Your task to perform on an android device: open app "VLC for Android" (install if not already installed) and enter user name: "Yves@outlook.com" and password: "internally" Image 0: 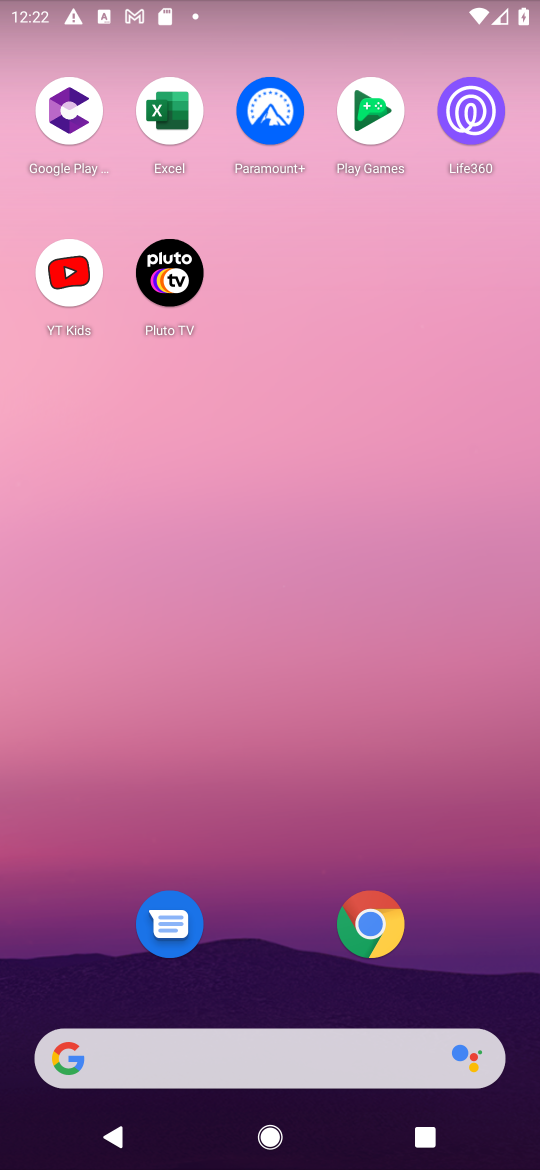
Step 0: press home button
Your task to perform on an android device: open app "VLC for Android" (install if not already installed) and enter user name: "Yves@outlook.com" and password: "internally" Image 1: 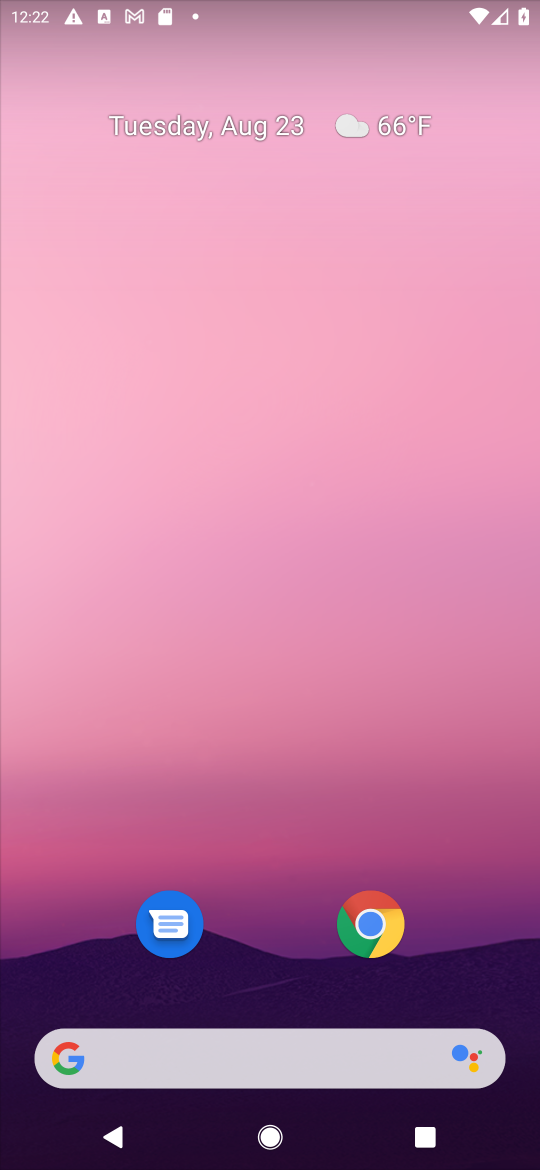
Step 1: drag from (481, 982) to (465, 107)
Your task to perform on an android device: open app "VLC for Android" (install if not already installed) and enter user name: "Yves@outlook.com" and password: "internally" Image 2: 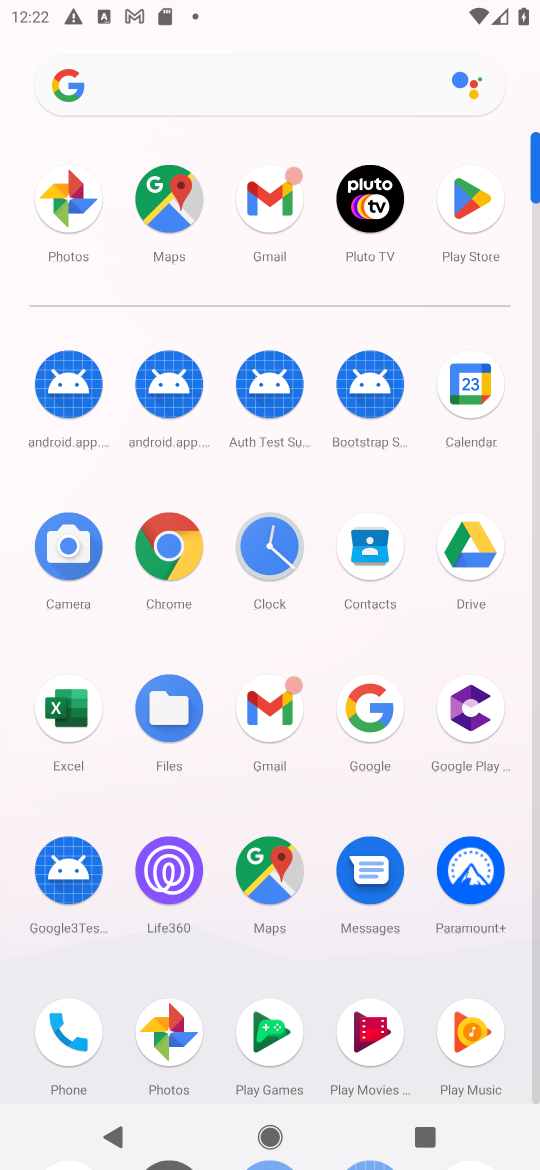
Step 2: click (473, 193)
Your task to perform on an android device: open app "VLC for Android" (install if not already installed) and enter user name: "Yves@outlook.com" and password: "internally" Image 3: 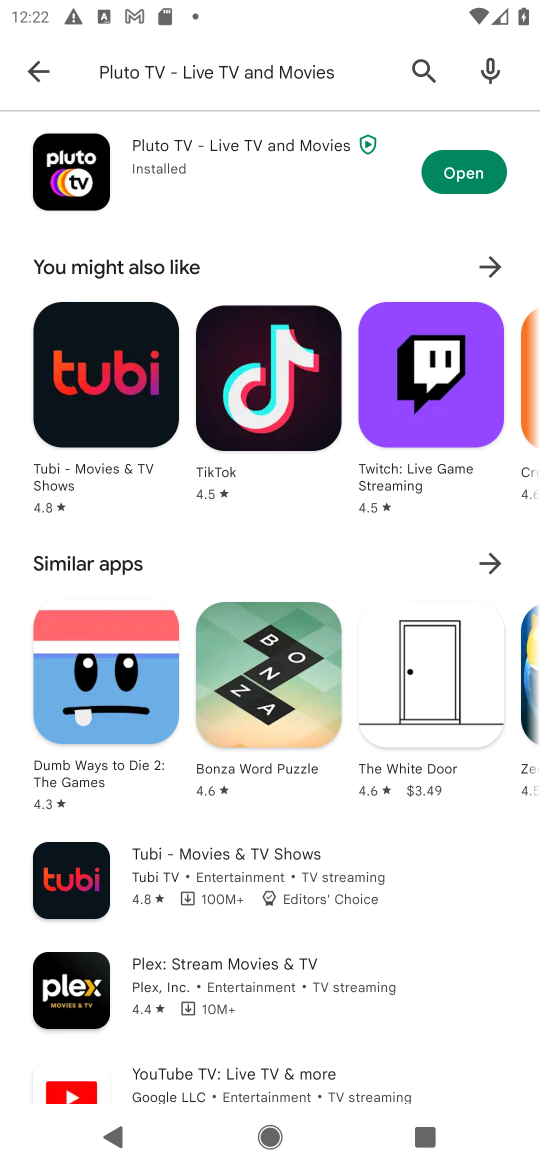
Step 3: press back button
Your task to perform on an android device: open app "VLC for Android" (install if not already installed) and enter user name: "Yves@outlook.com" and password: "internally" Image 4: 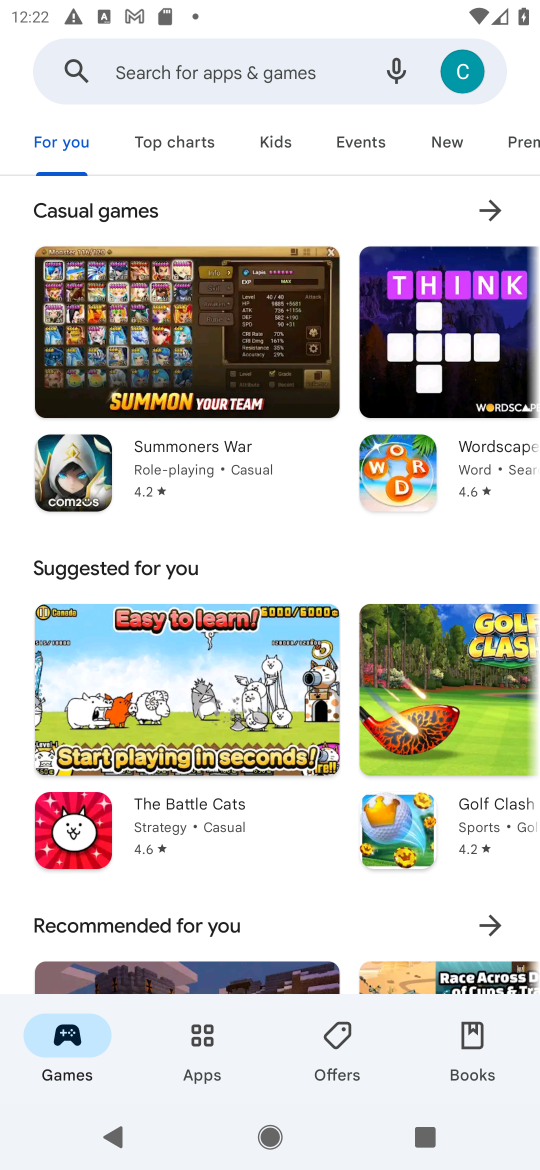
Step 4: click (168, 59)
Your task to perform on an android device: open app "VLC for Android" (install if not already installed) and enter user name: "Yves@outlook.com" and password: "internally" Image 5: 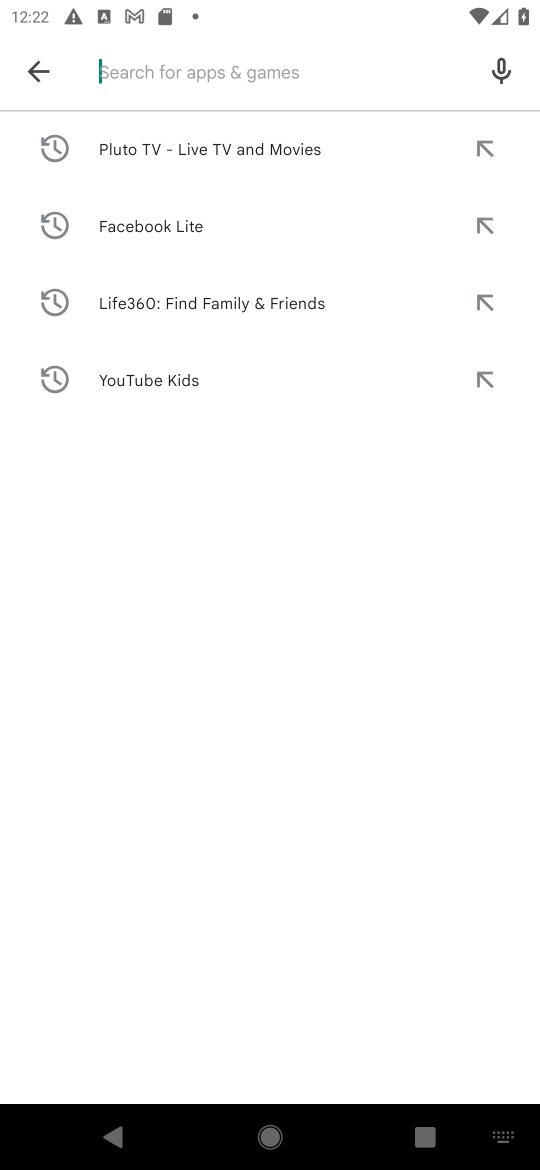
Step 5: type "VLC for Android"
Your task to perform on an android device: open app "VLC for Android" (install if not already installed) and enter user name: "Yves@outlook.com" and password: "internally" Image 6: 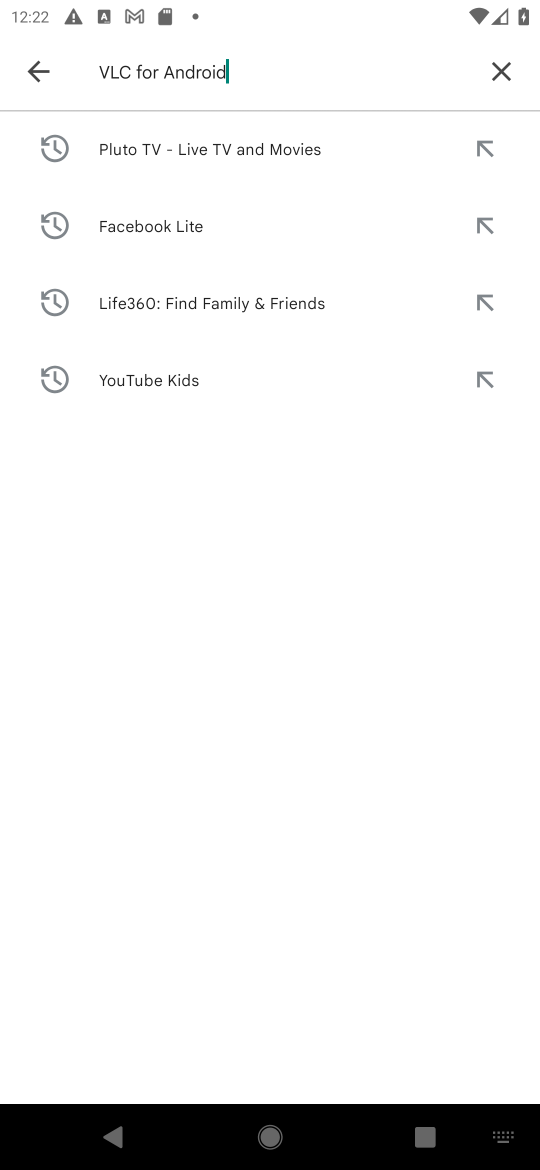
Step 6: press enter
Your task to perform on an android device: open app "VLC for Android" (install if not already installed) and enter user name: "Yves@outlook.com" and password: "internally" Image 7: 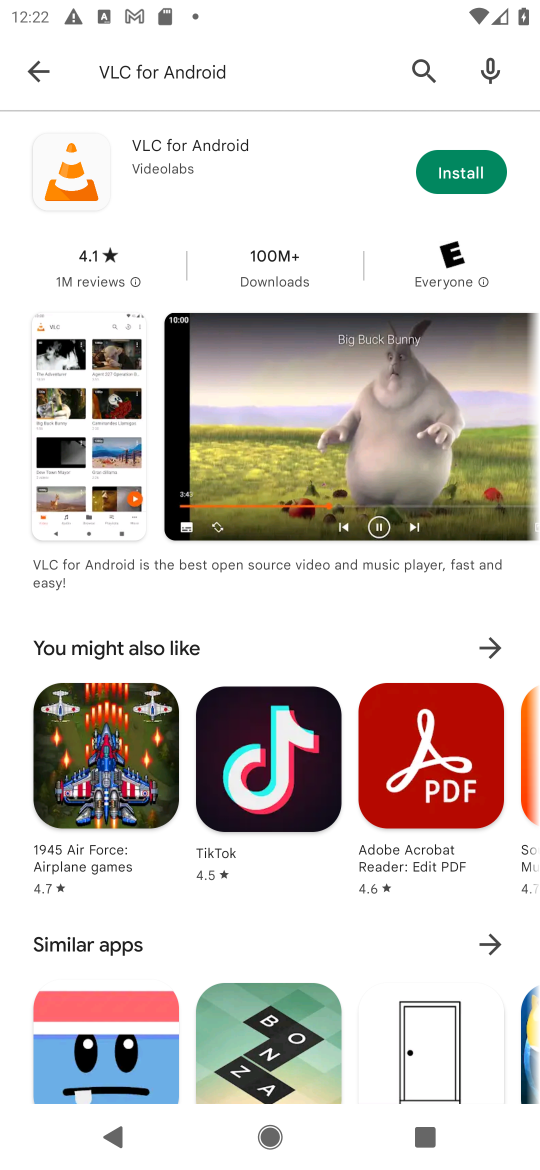
Step 7: click (455, 177)
Your task to perform on an android device: open app "VLC for Android" (install if not already installed) and enter user name: "Yves@outlook.com" and password: "internally" Image 8: 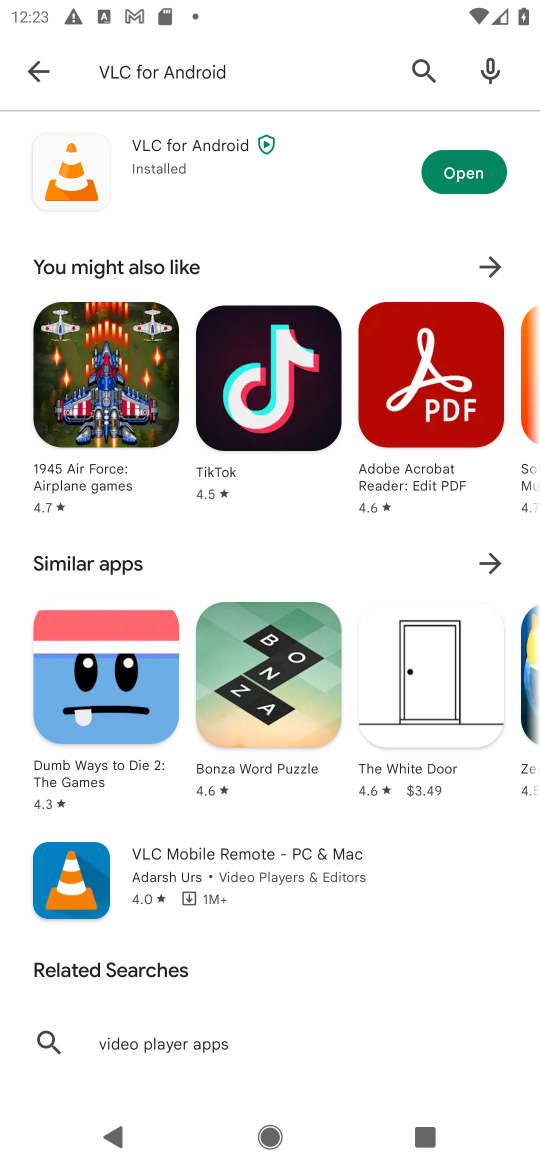
Step 8: click (470, 176)
Your task to perform on an android device: open app "VLC for Android" (install if not already installed) and enter user name: "Yves@outlook.com" and password: "internally" Image 9: 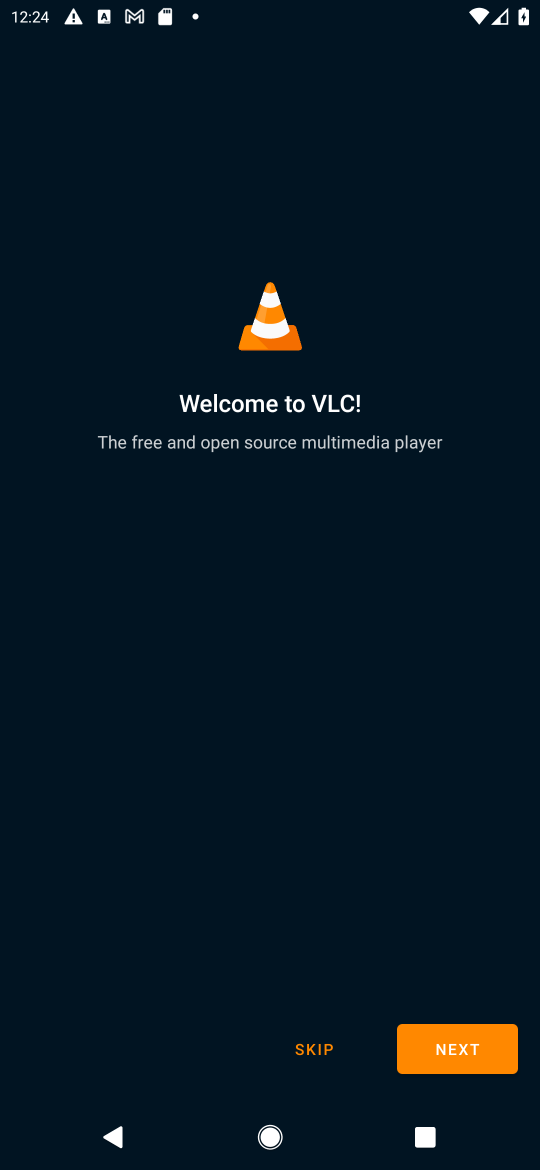
Step 9: click (456, 1046)
Your task to perform on an android device: open app "VLC for Android" (install if not already installed) and enter user name: "Yves@outlook.com" and password: "internally" Image 10: 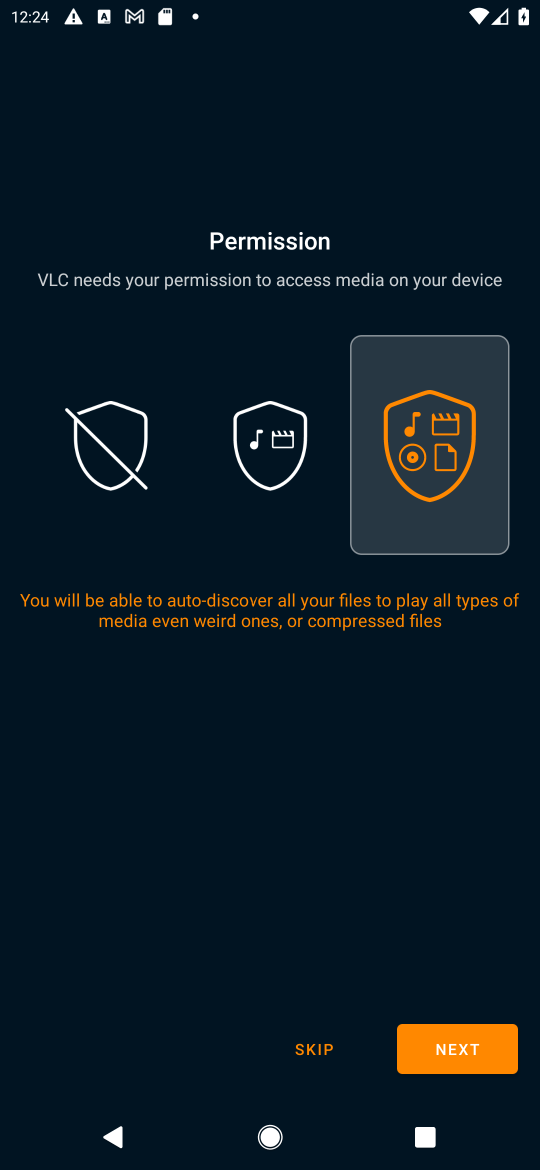
Step 10: click (479, 1041)
Your task to perform on an android device: open app "VLC for Android" (install if not already installed) and enter user name: "Yves@outlook.com" and password: "internally" Image 11: 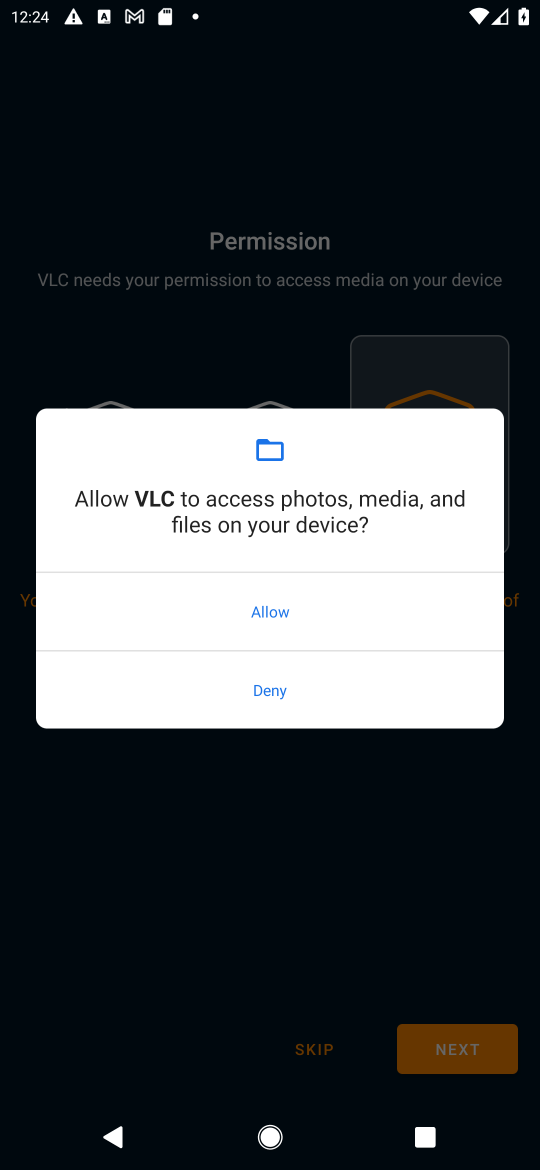
Step 11: click (306, 708)
Your task to perform on an android device: open app "VLC for Android" (install if not already installed) and enter user name: "Yves@outlook.com" and password: "internally" Image 12: 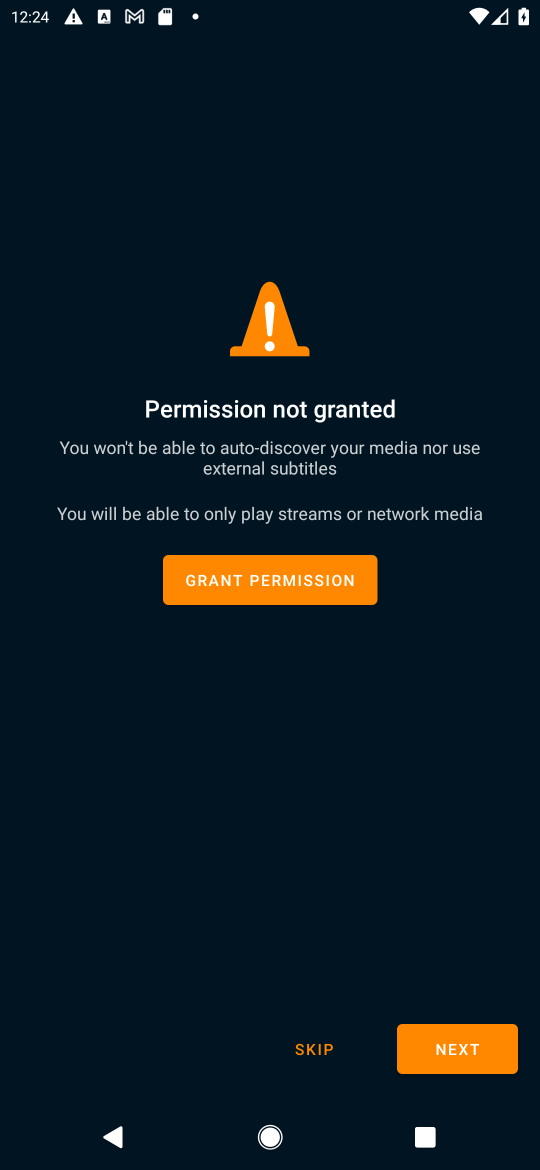
Step 12: click (456, 1052)
Your task to perform on an android device: open app "VLC for Android" (install if not already installed) and enter user name: "Yves@outlook.com" and password: "internally" Image 13: 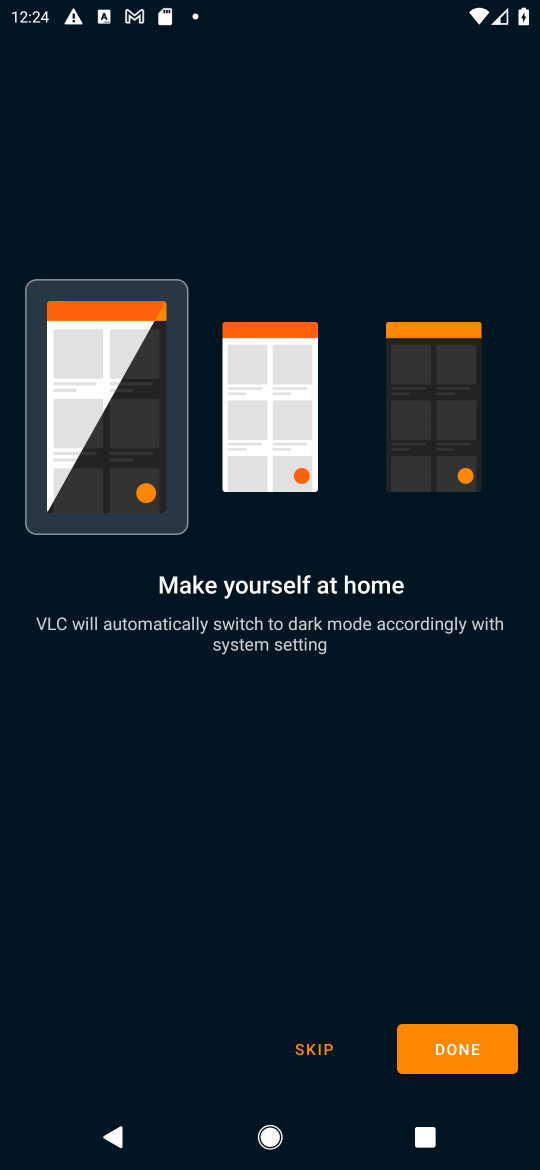
Step 13: click (434, 1050)
Your task to perform on an android device: open app "VLC for Android" (install if not already installed) and enter user name: "Yves@outlook.com" and password: "internally" Image 14: 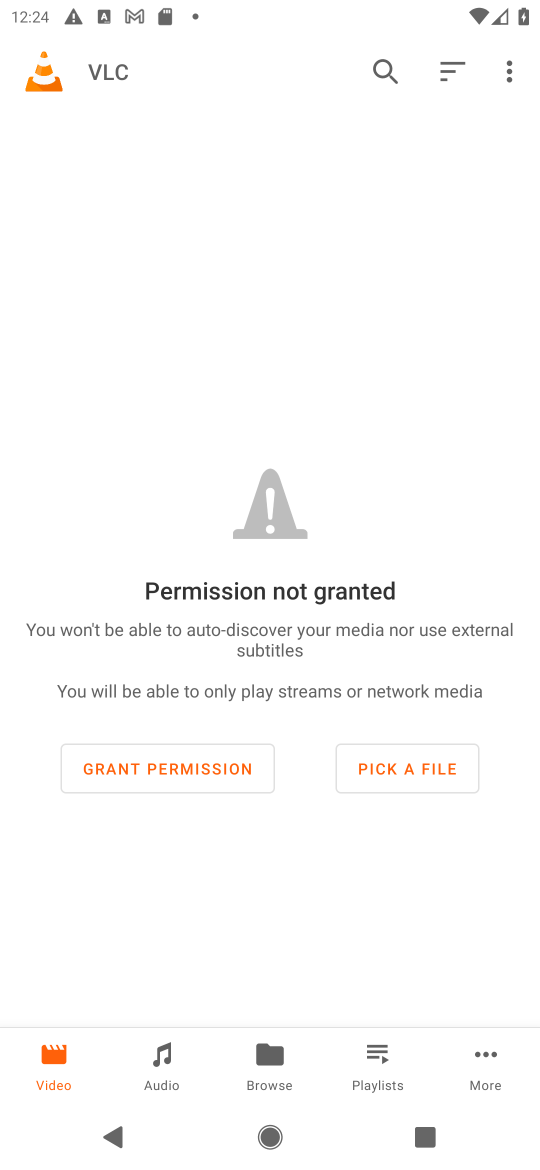
Step 14: click (489, 1078)
Your task to perform on an android device: open app "VLC for Android" (install if not already installed) and enter user name: "Yves@outlook.com" and password: "internally" Image 15: 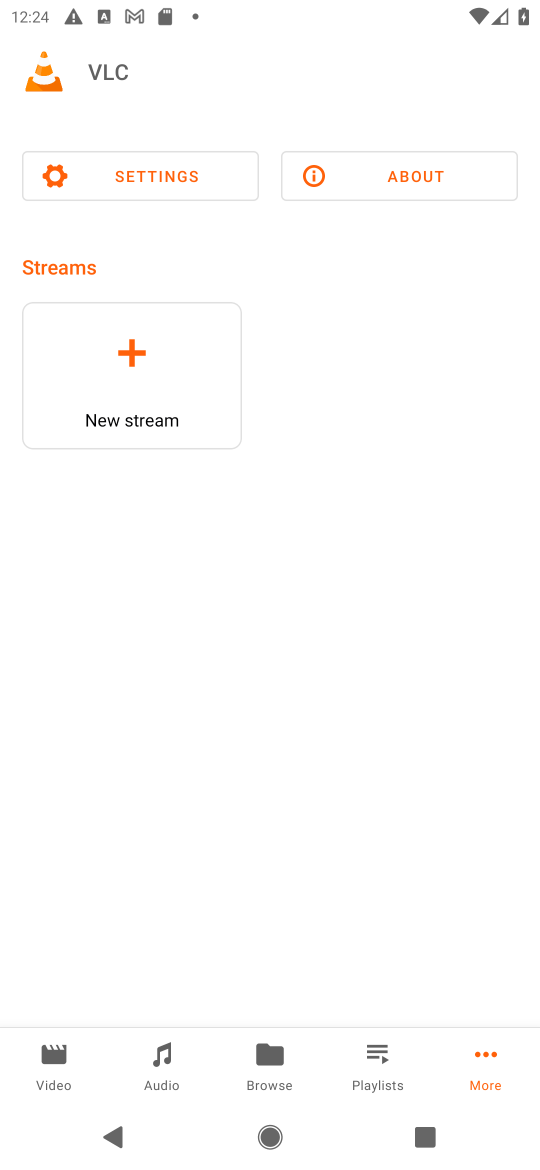
Step 15: task complete